Your task to perform on an android device: toggle notifications settings in the gmail app Image 0: 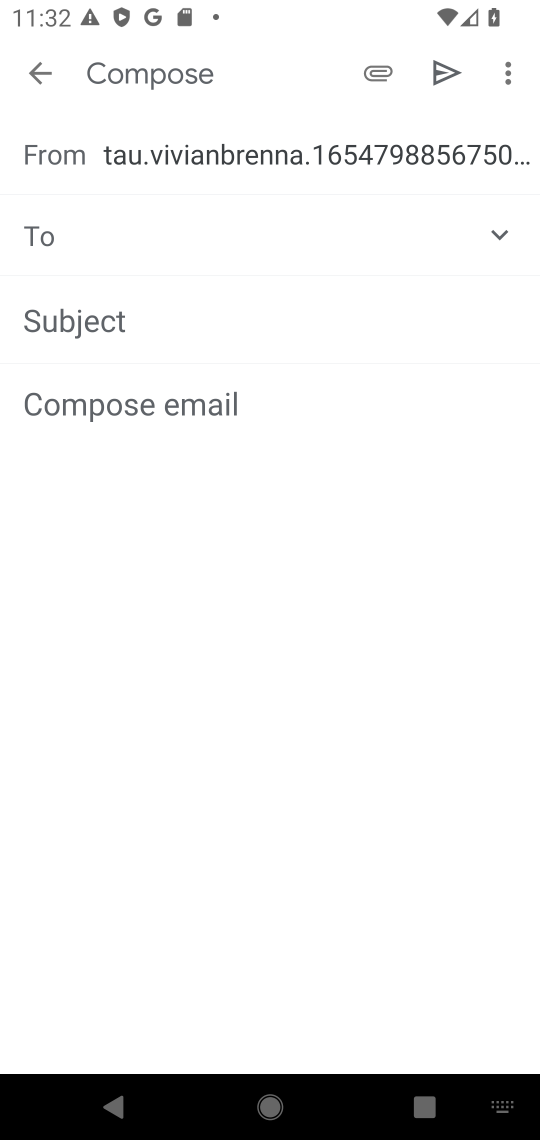
Step 0: press home button
Your task to perform on an android device: toggle notifications settings in the gmail app Image 1: 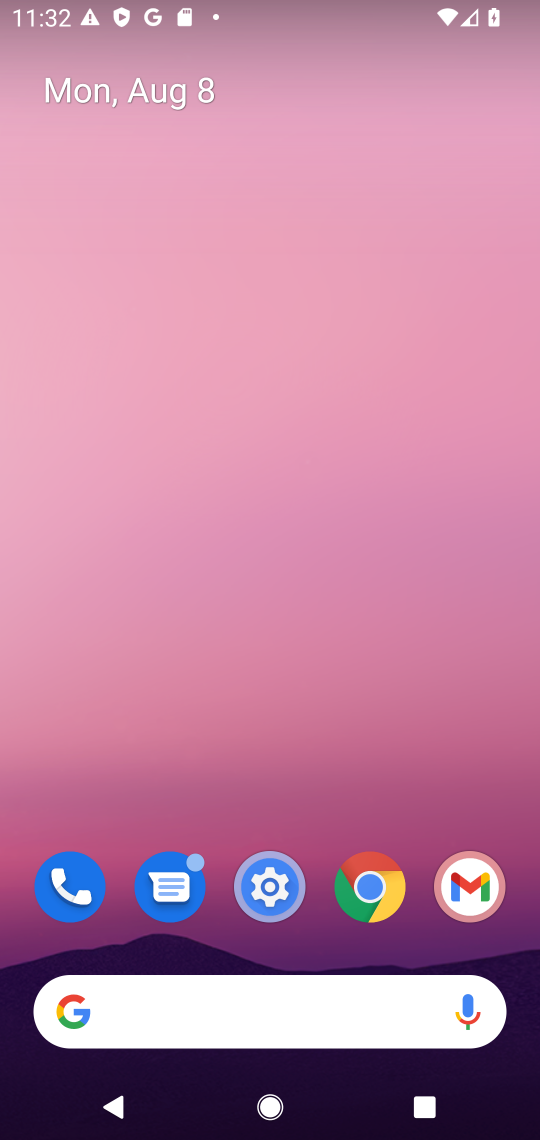
Step 1: click (465, 879)
Your task to perform on an android device: toggle notifications settings in the gmail app Image 2: 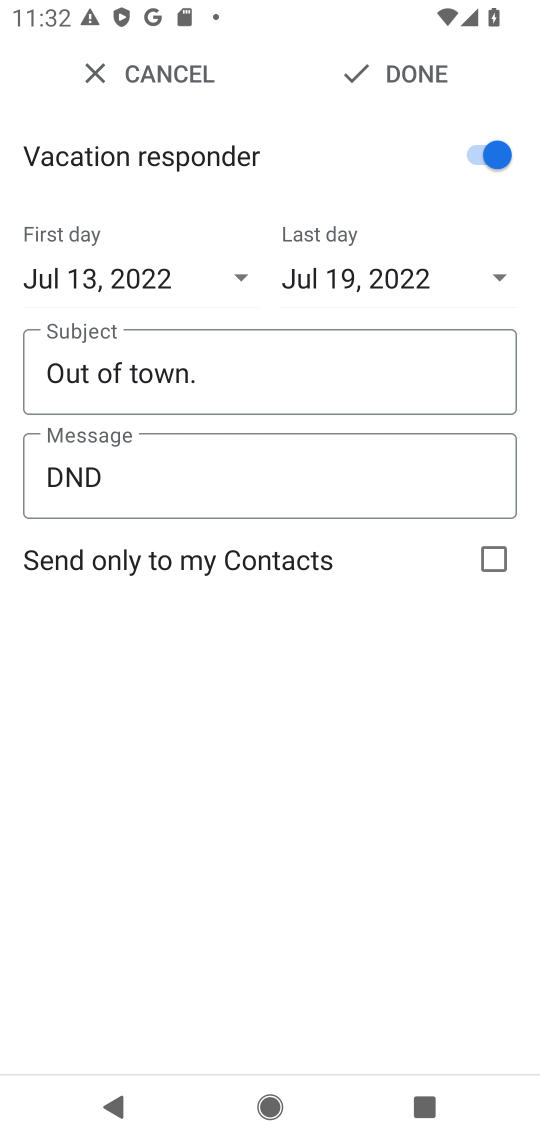
Step 2: click (401, 73)
Your task to perform on an android device: toggle notifications settings in the gmail app Image 3: 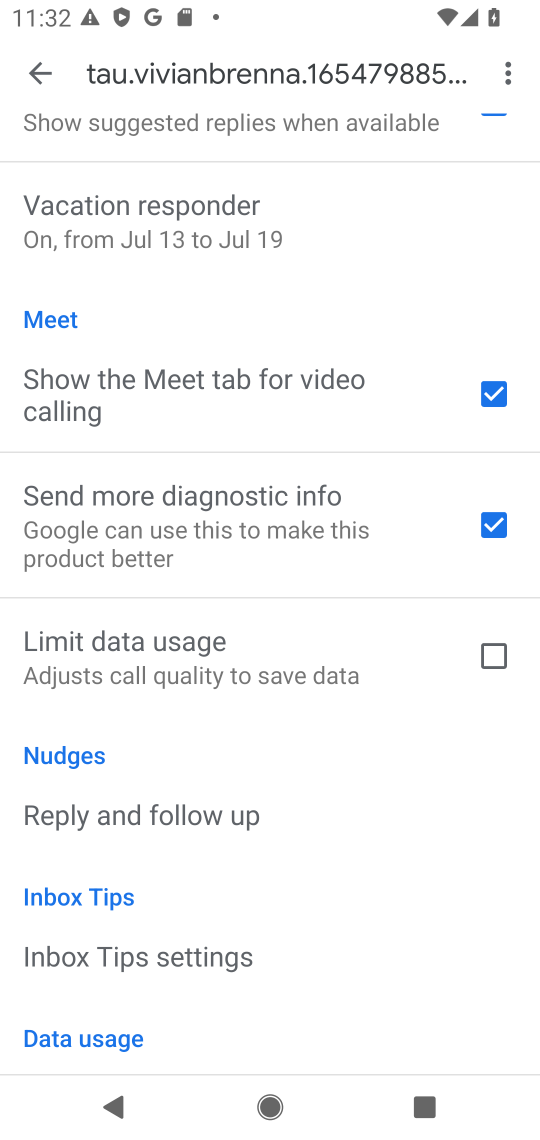
Step 3: click (30, 67)
Your task to perform on an android device: toggle notifications settings in the gmail app Image 4: 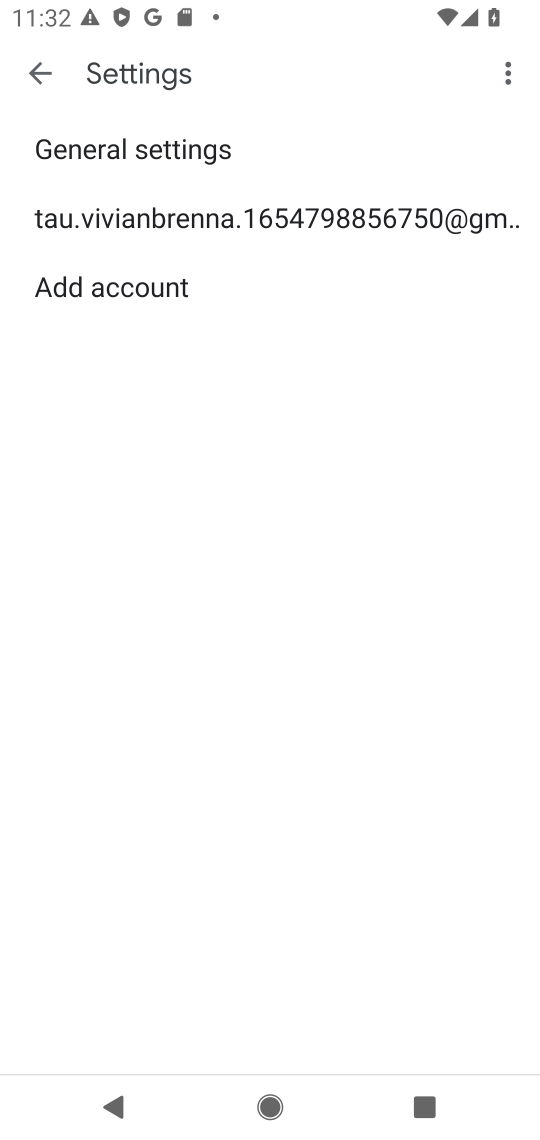
Step 4: click (131, 152)
Your task to perform on an android device: toggle notifications settings in the gmail app Image 5: 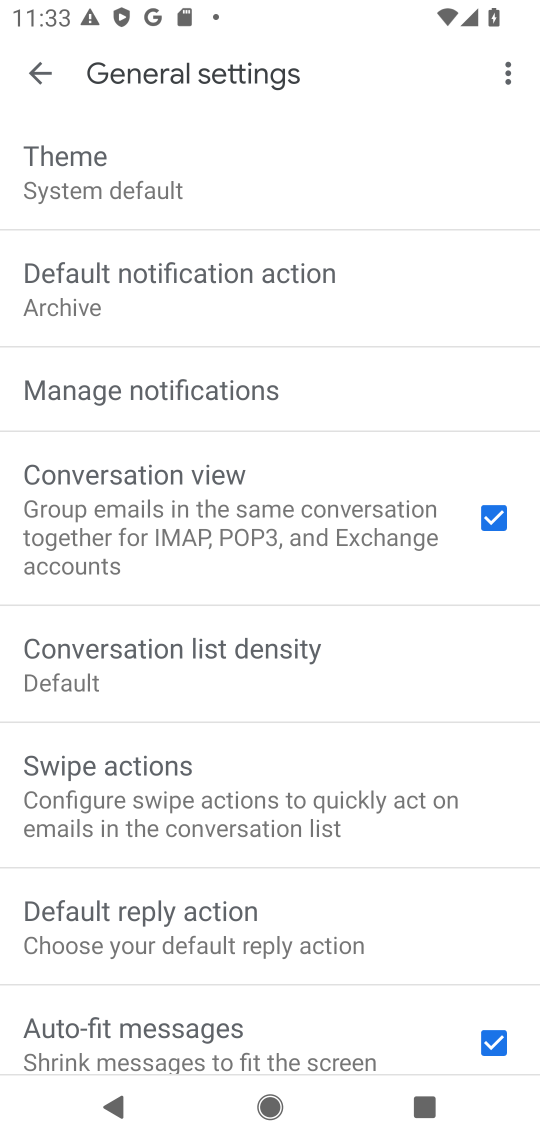
Step 5: click (174, 388)
Your task to perform on an android device: toggle notifications settings in the gmail app Image 6: 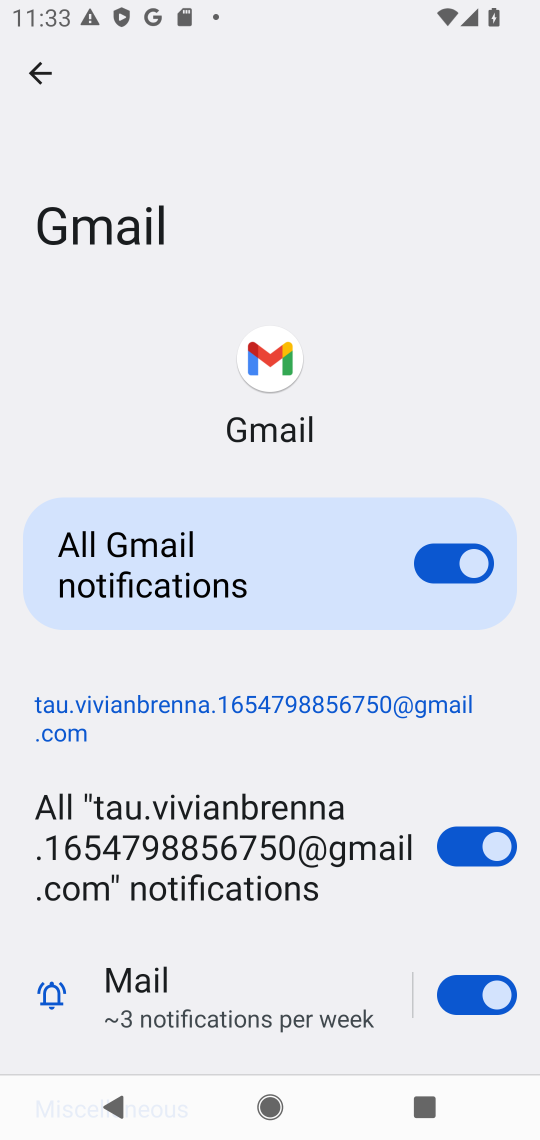
Step 6: click (450, 568)
Your task to perform on an android device: toggle notifications settings in the gmail app Image 7: 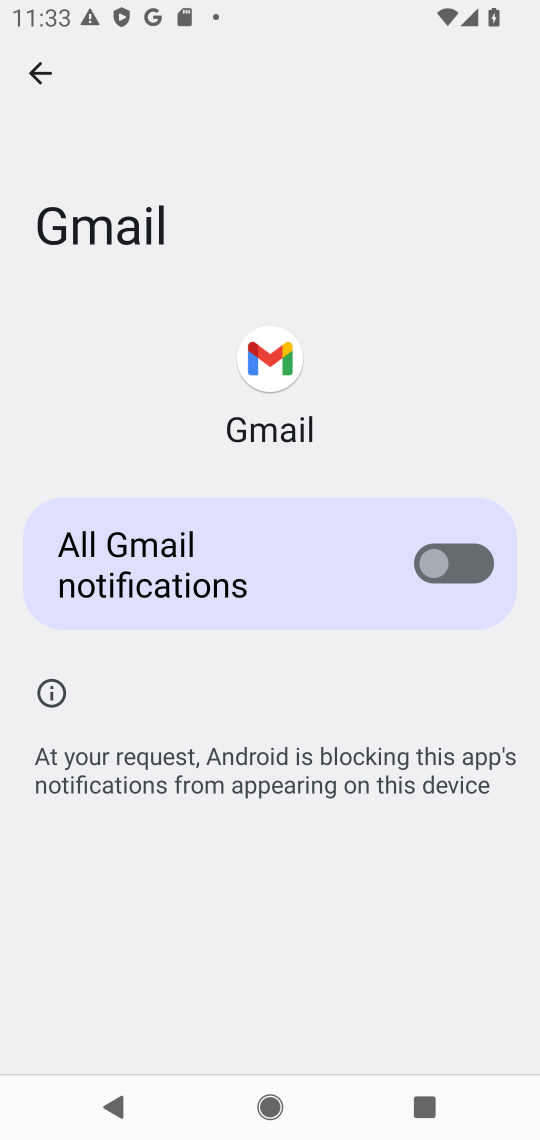
Step 7: task complete